Your task to perform on an android device: turn smart compose on in the gmail app Image 0: 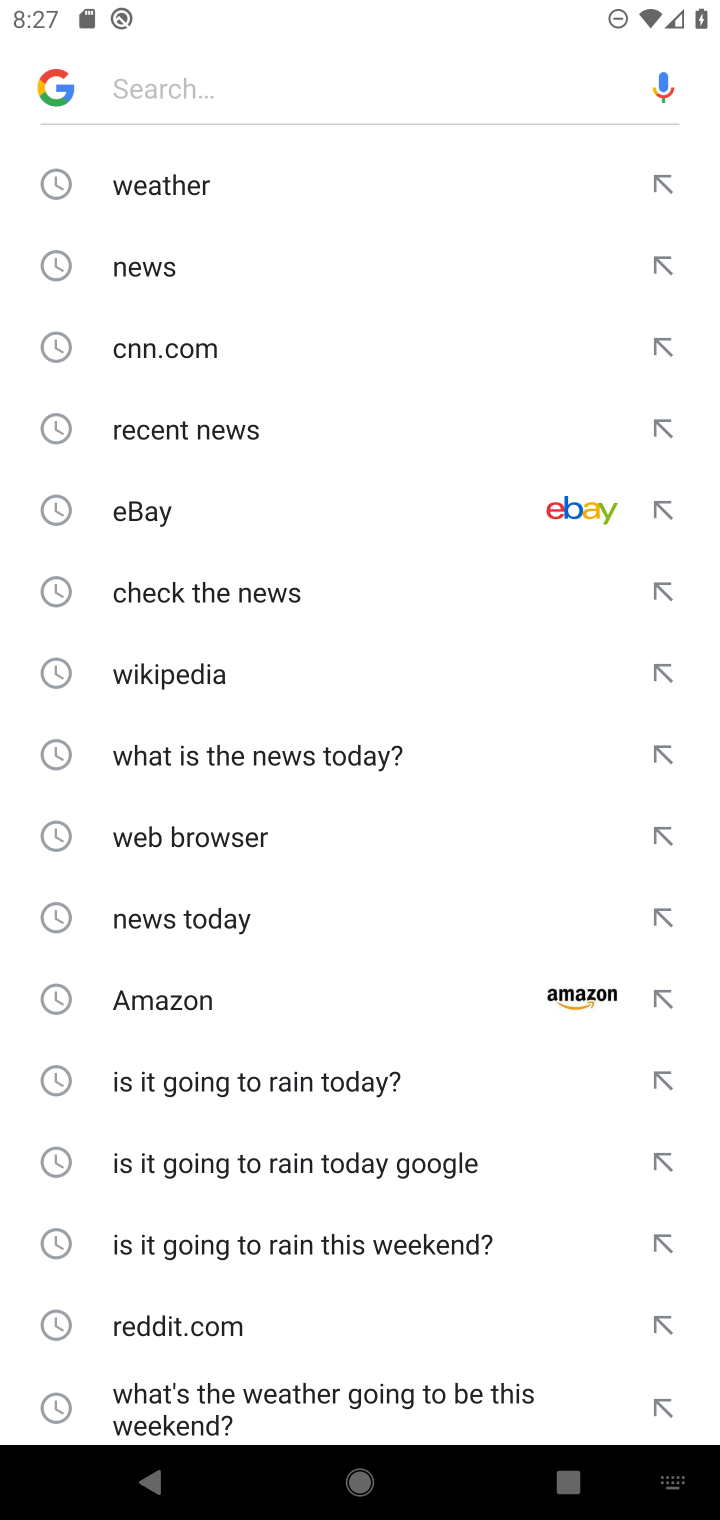
Step 0: press home button
Your task to perform on an android device: turn smart compose on in the gmail app Image 1: 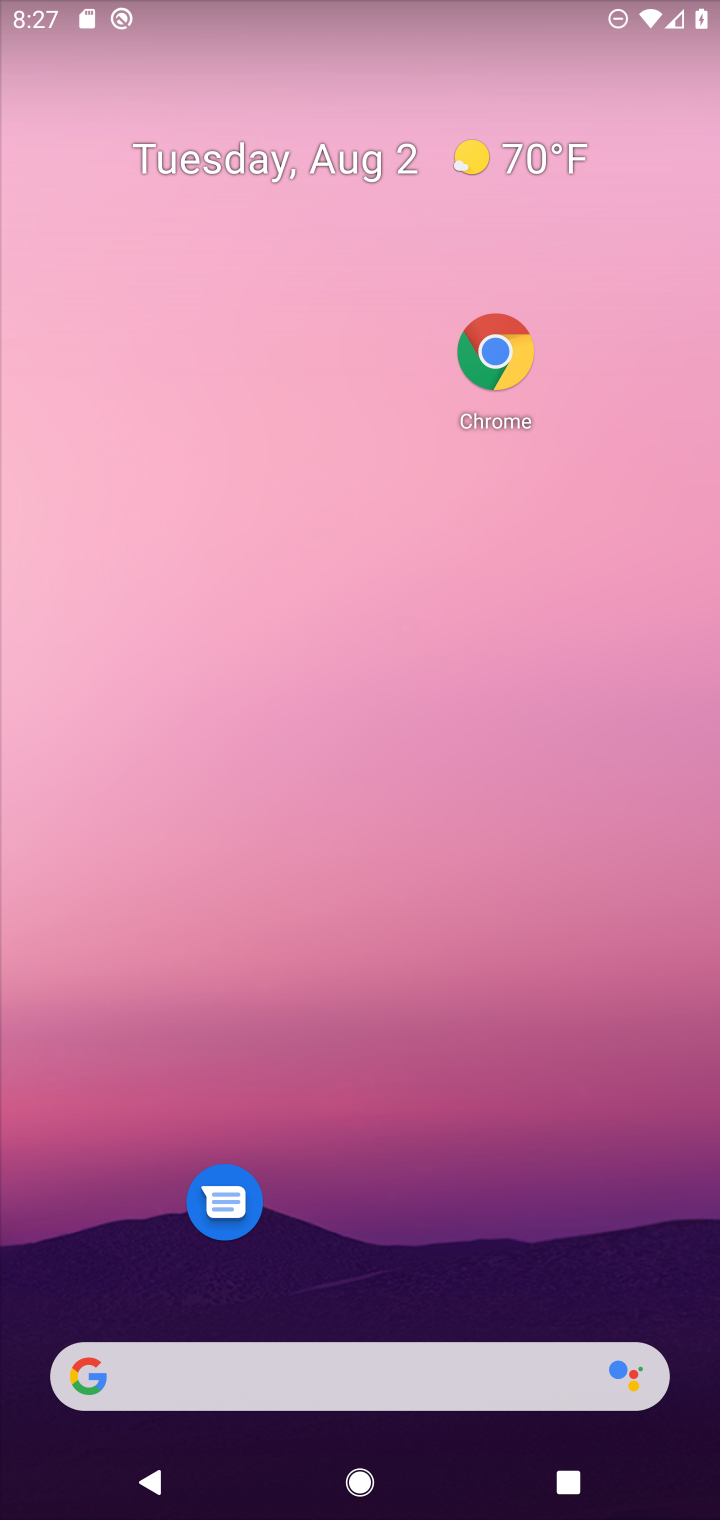
Step 1: drag from (323, 1168) to (277, 83)
Your task to perform on an android device: turn smart compose on in the gmail app Image 2: 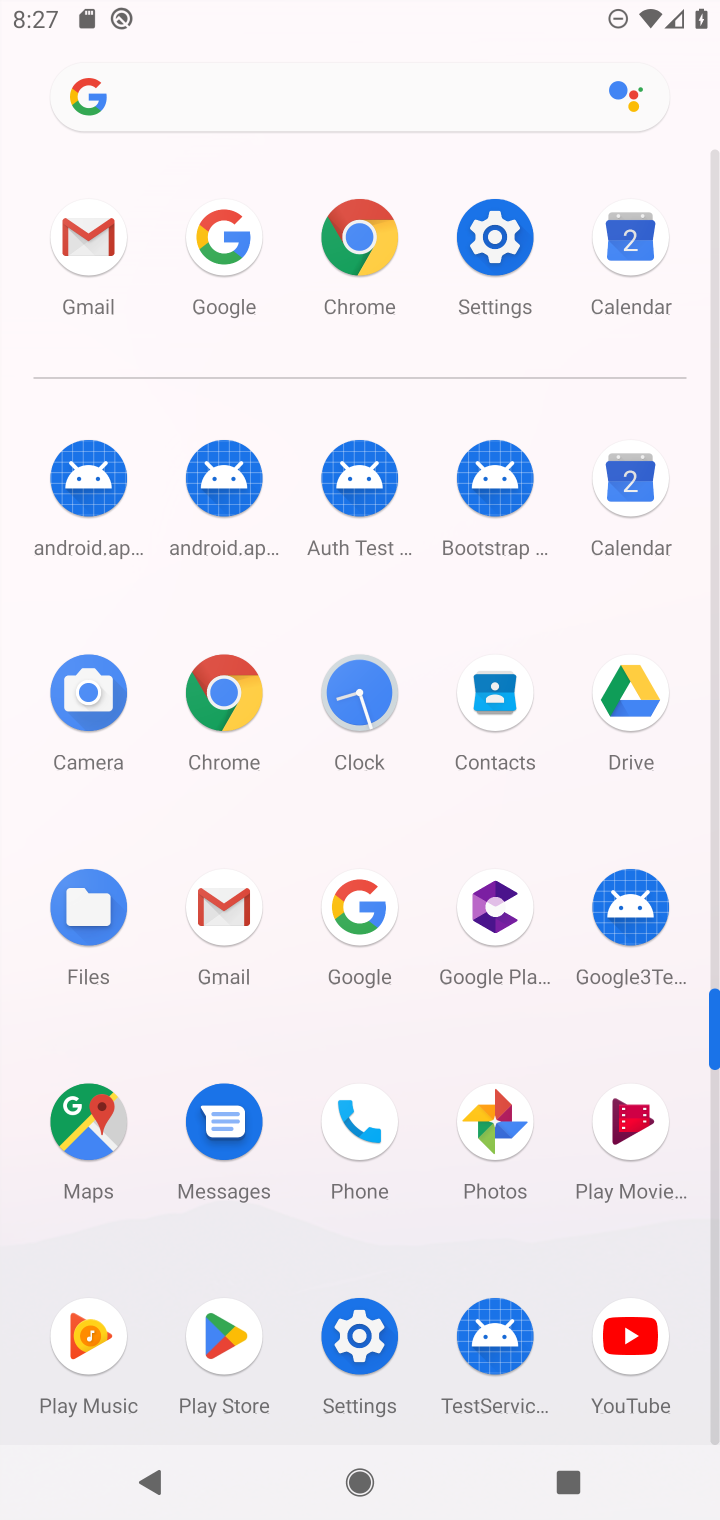
Step 2: click (63, 252)
Your task to perform on an android device: turn smart compose on in the gmail app Image 3: 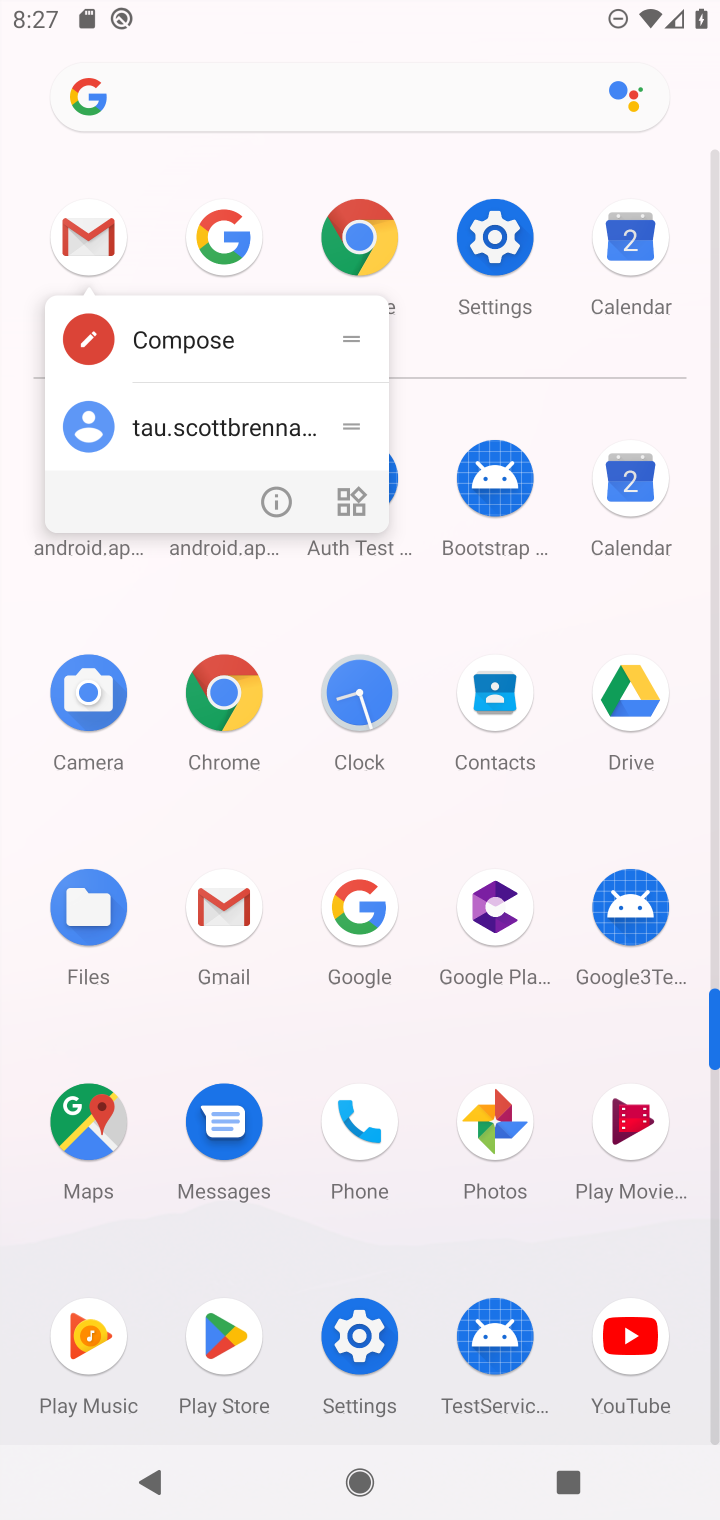
Step 3: click (79, 241)
Your task to perform on an android device: turn smart compose on in the gmail app Image 4: 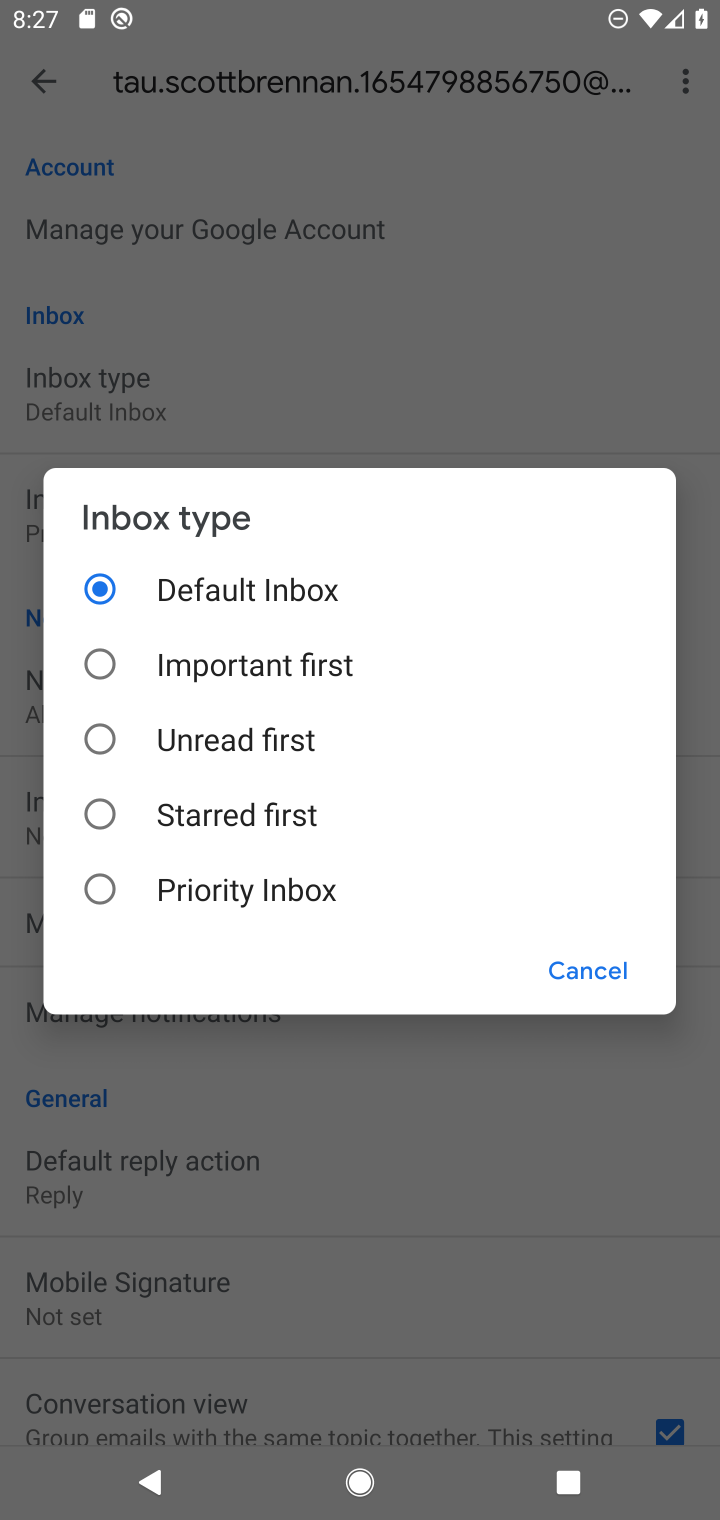
Step 4: click (589, 982)
Your task to perform on an android device: turn smart compose on in the gmail app Image 5: 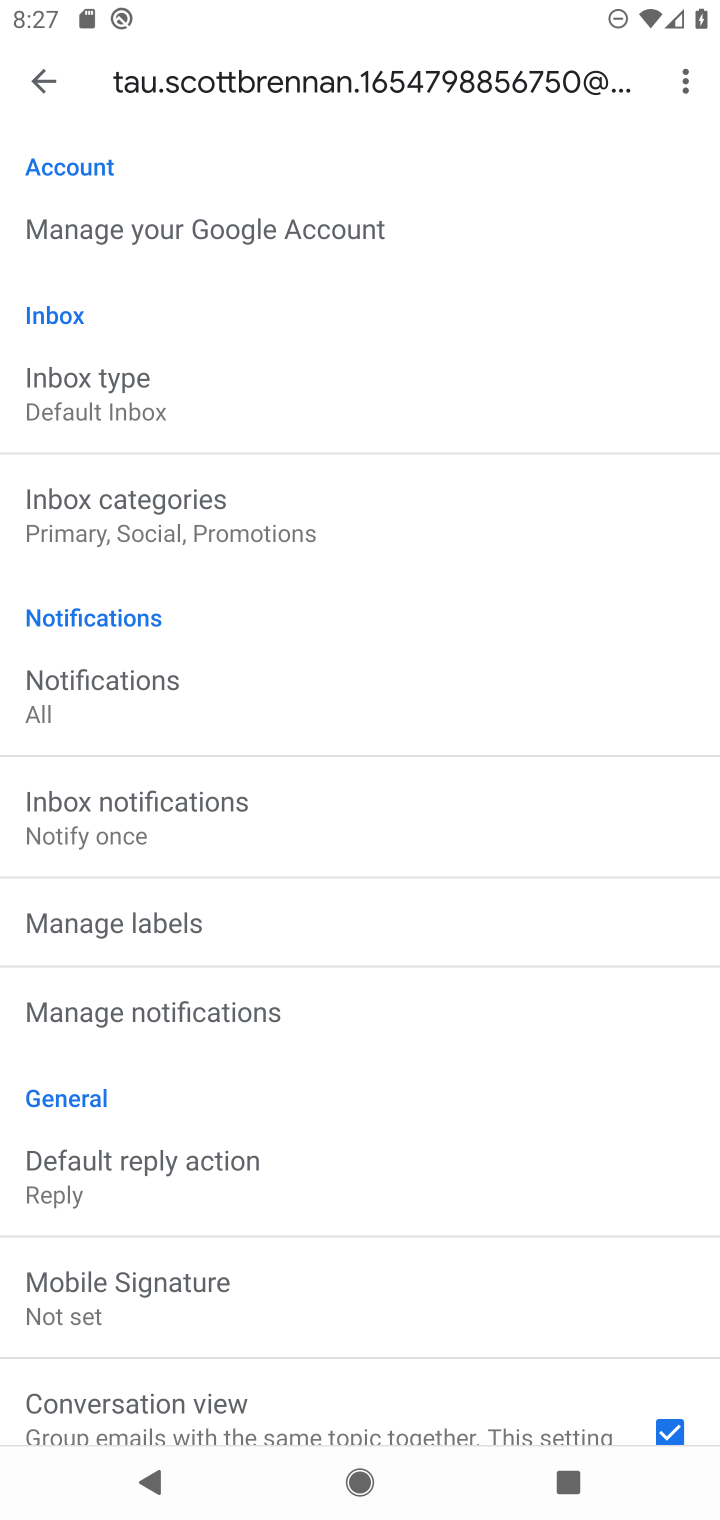
Step 5: click (55, 73)
Your task to perform on an android device: turn smart compose on in the gmail app Image 6: 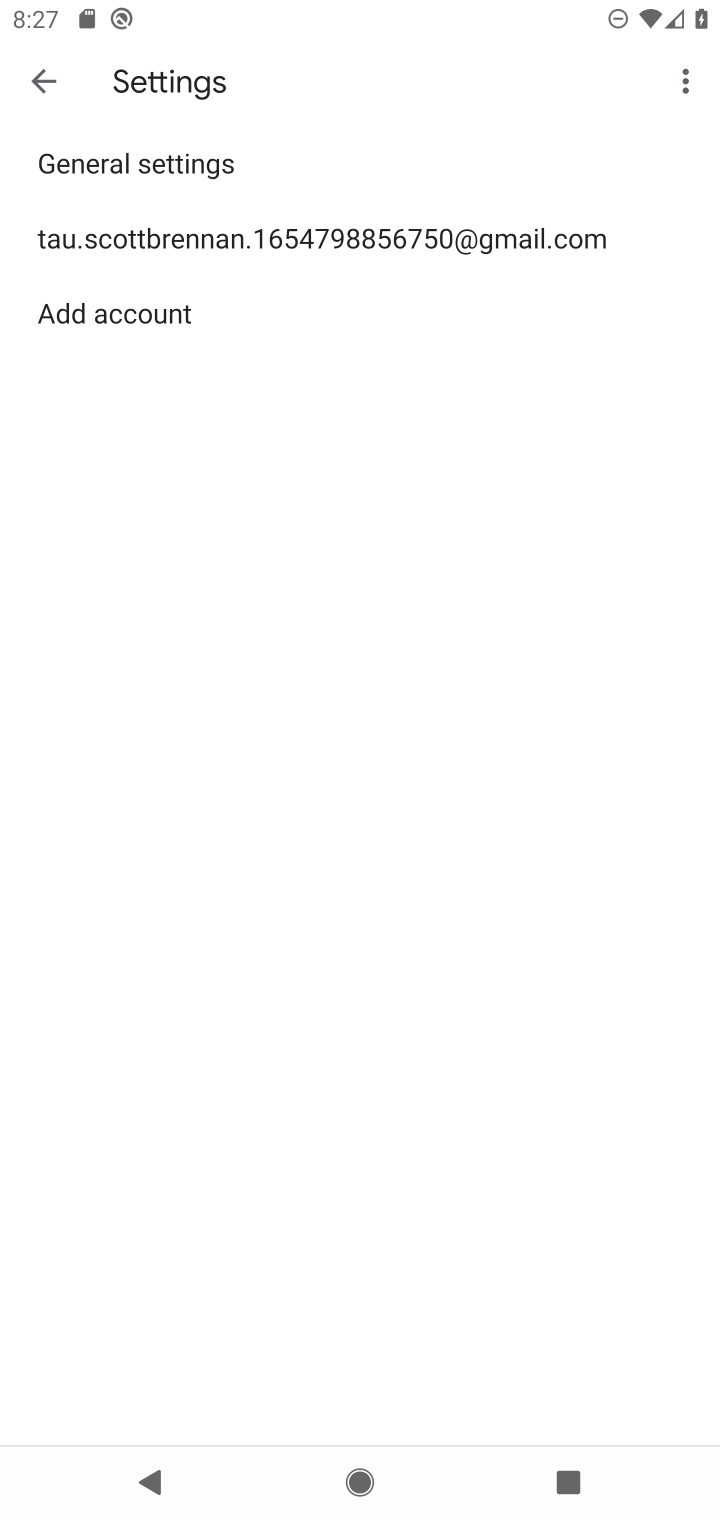
Step 6: click (121, 258)
Your task to perform on an android device: turn smart compose on in the gmail app Image 7: 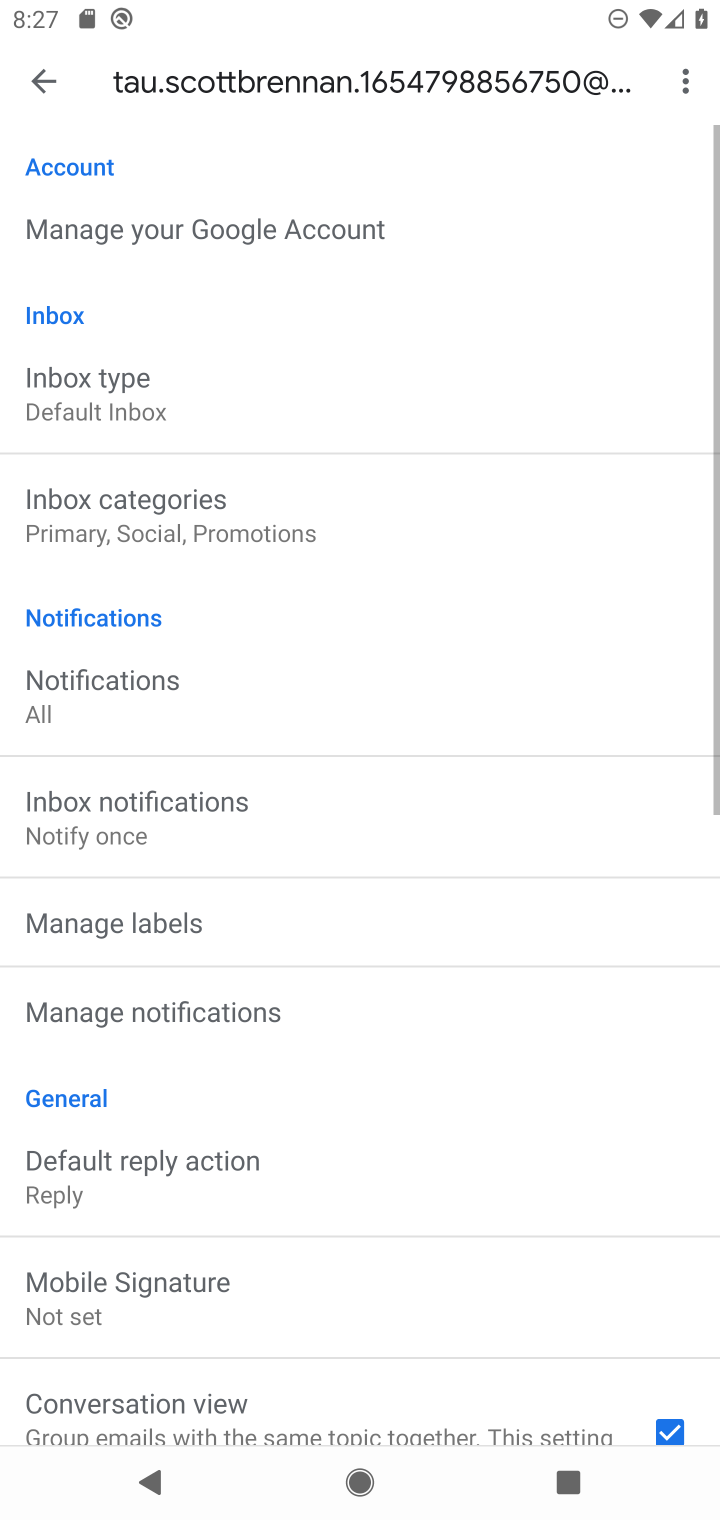
Step 7: task complete